Your task to perform on an android device: Go to Yahoo.com Image 0: 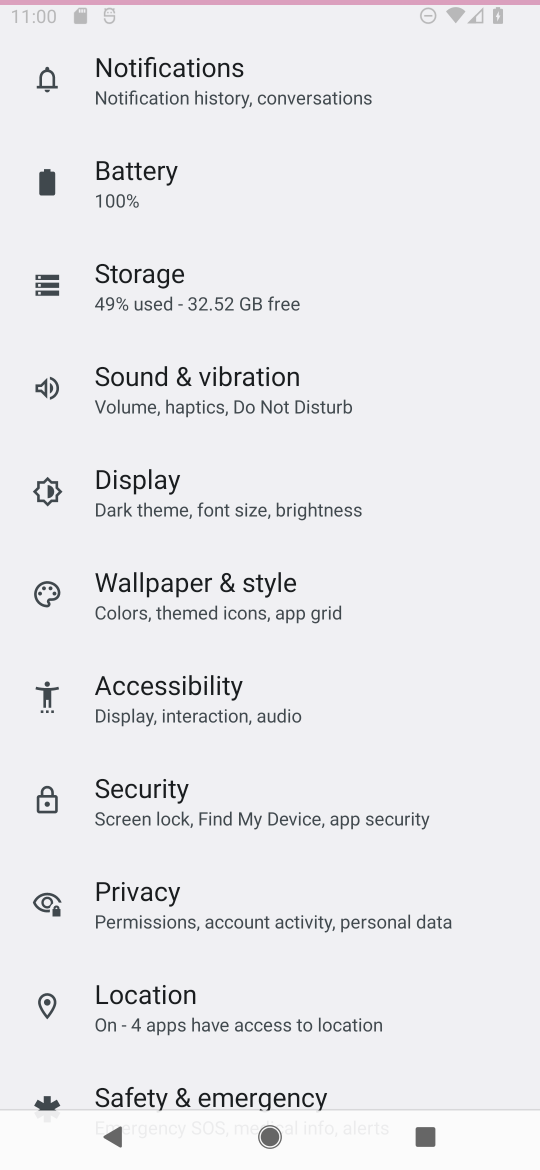
Step 0: press home button
Your task to perform on an android device: Go to Yahoo.com Image 1: 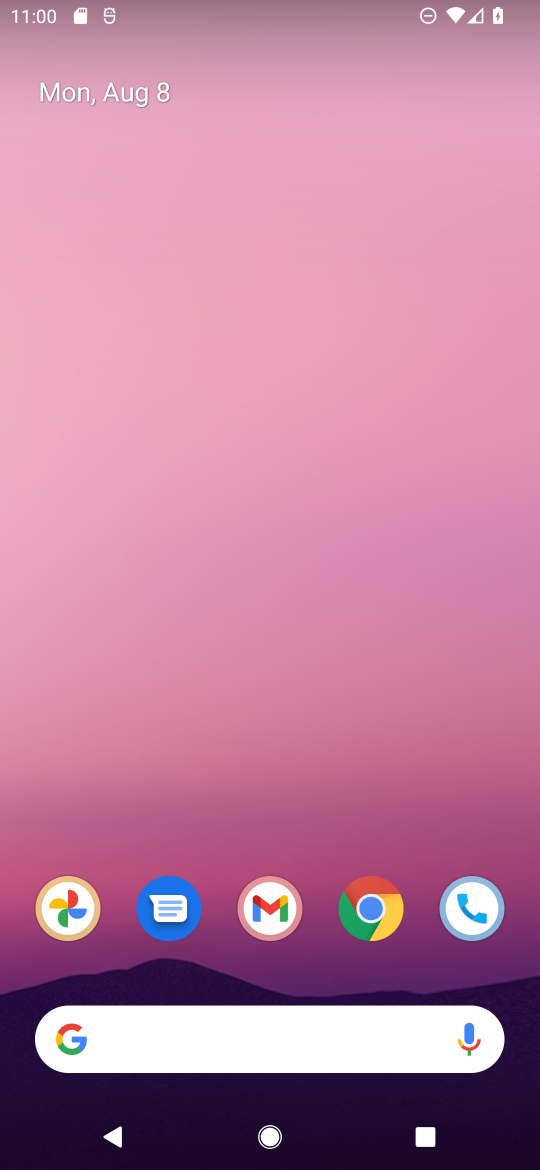
Step 1: click (374, 902)
Your task to perform on an android device: Go to Yahoo.com Image 2: 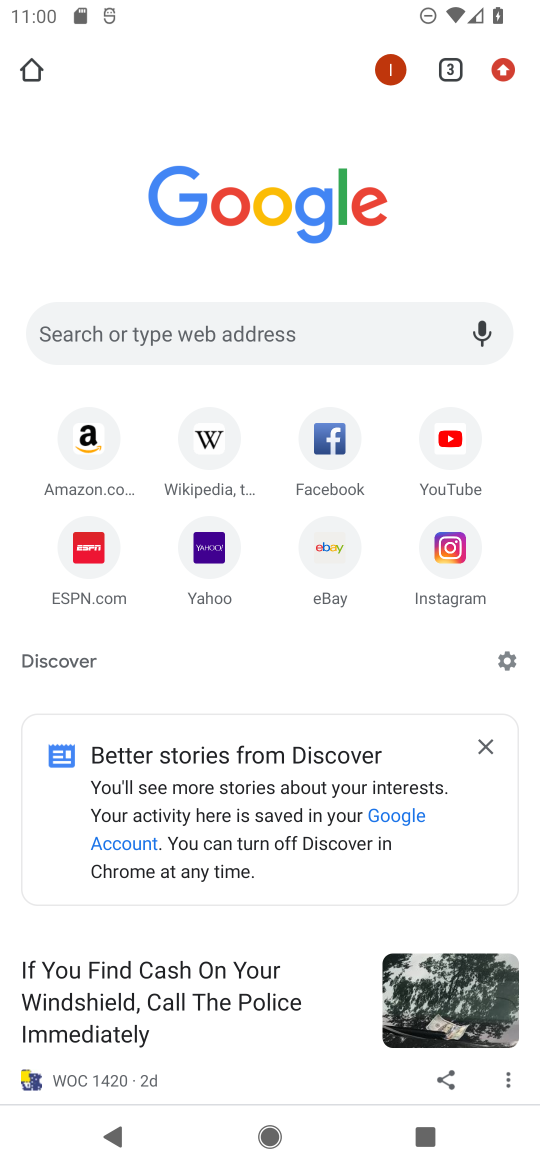
Step 2: click (205, 545)
Your task to perform on an android device: Go to Yahoo.com Image 3: 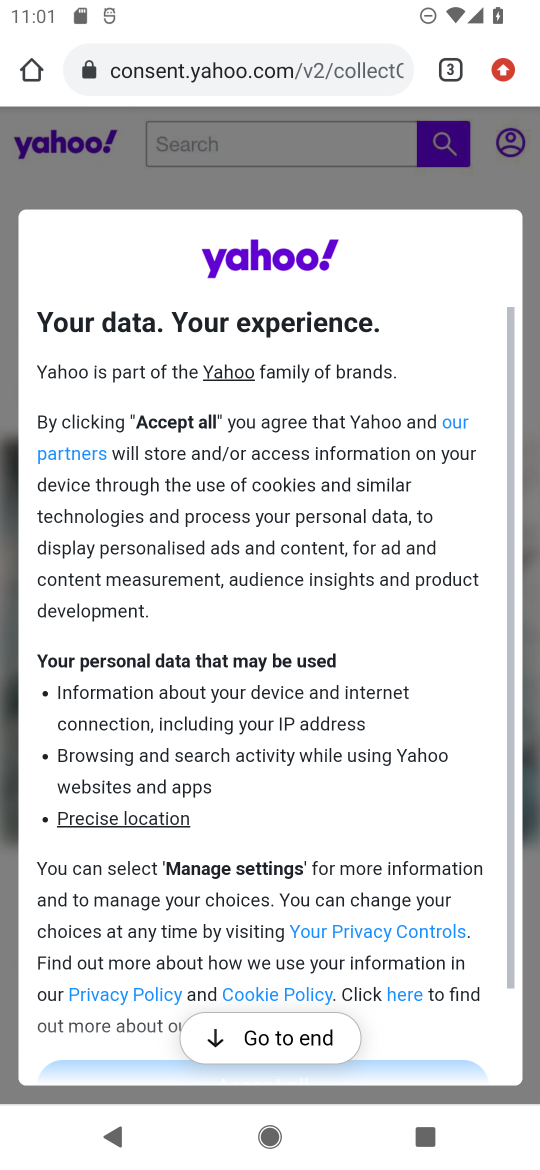
Step 3: click (278, 1031)
Your task to perform on an android device: Go to Yahoo.com Image 4: 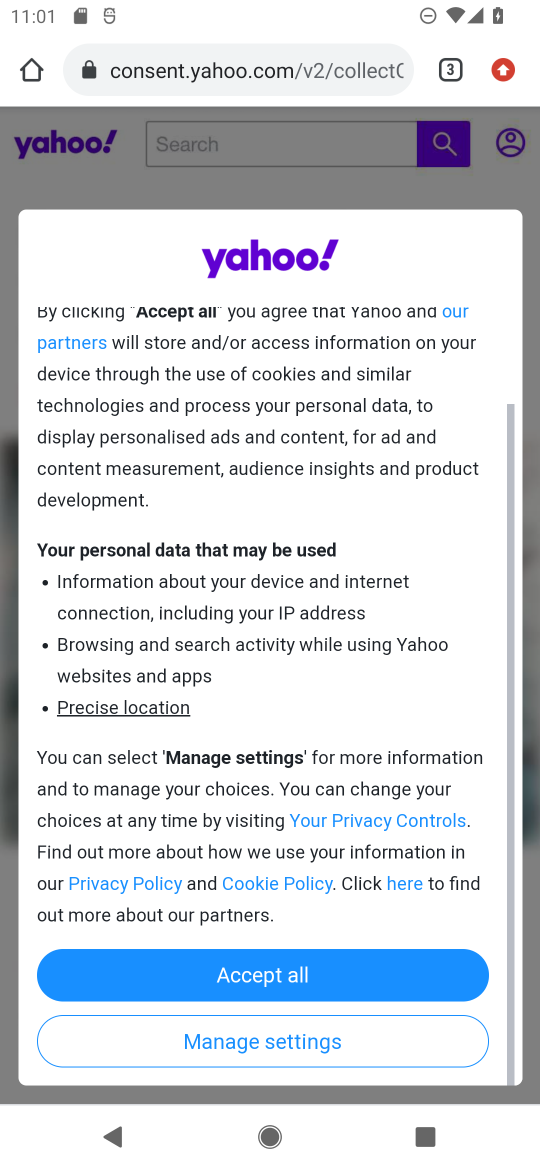
Step 4: click (282, 980)
Your task to perform on an android device: Go to Yahoo.com Image 5: 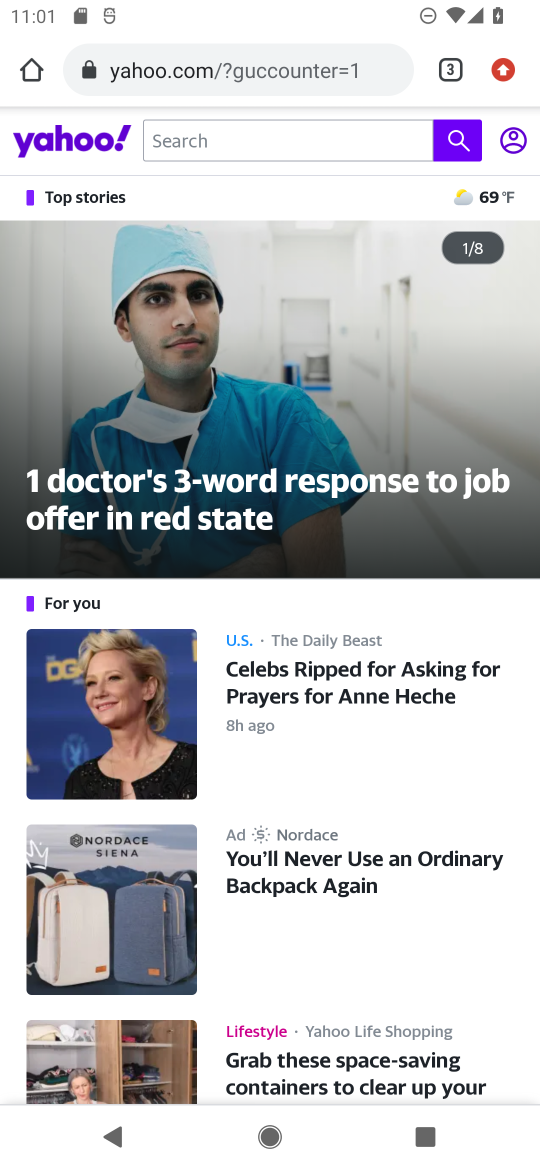
Step 5: task complete